Your task to perform on an android device: move an email to a new category in the gmail app Image 0: 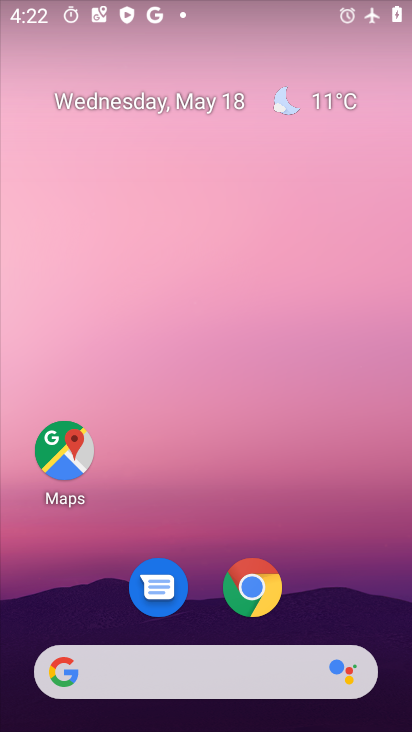
Step 0: drag from (252, 594) to (295, 205)
Your task to perform on an android device: move an email to a new category in the gmail app Image 1: 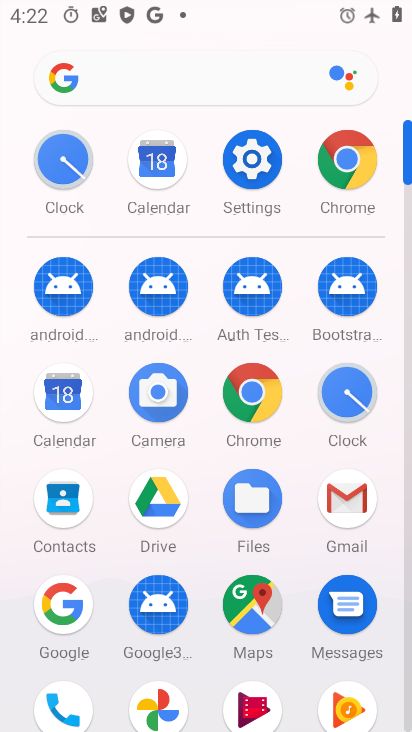
Step 1: click (357, 517)
Your task to perform on an android device: move an email to a new category in the gmail app Image 2: 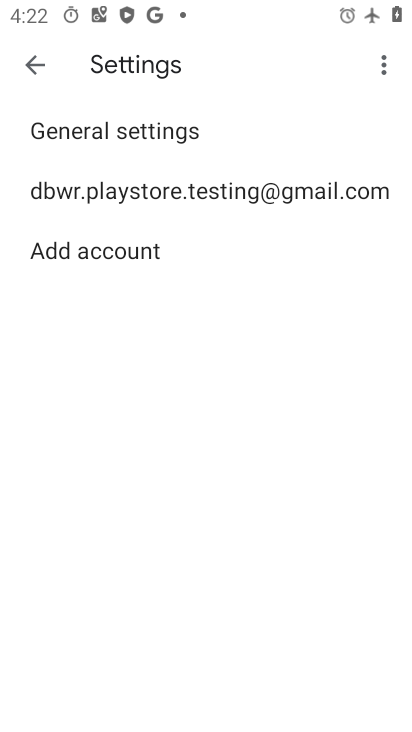
Step 2: click (40, 76)
Your task to perform on an android device: move an email to a new category in the gmail app Image 3: 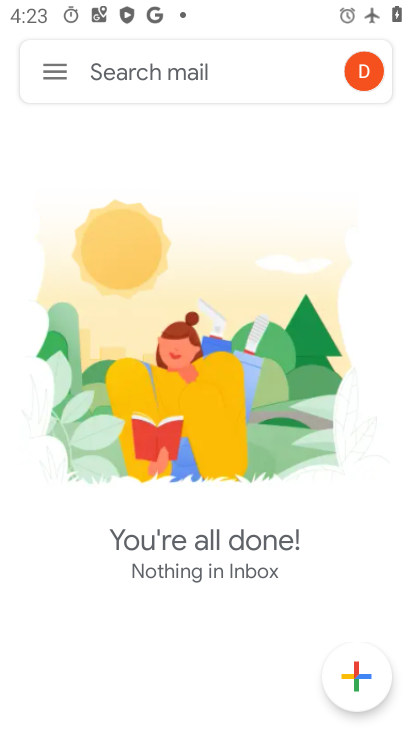
Step 3: click (56, 71)
Your task to perform on an android device: move an email to a new category in the gmail app Image 4: 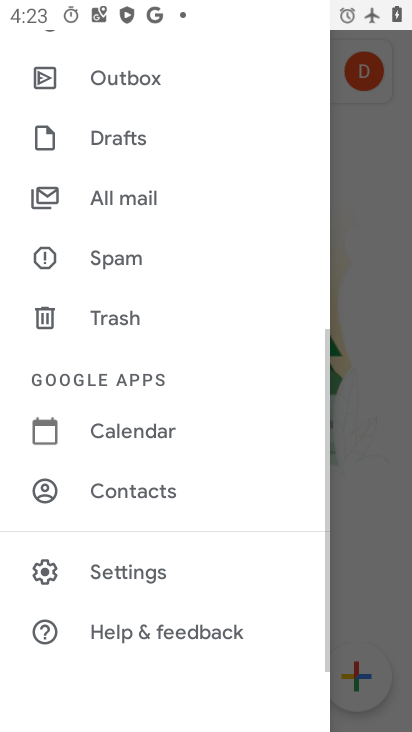
Step 4: drag from (162, 394) to (170, 475)
Your task to perform on an android device: move an email to a new category in the gmail app Image 5: 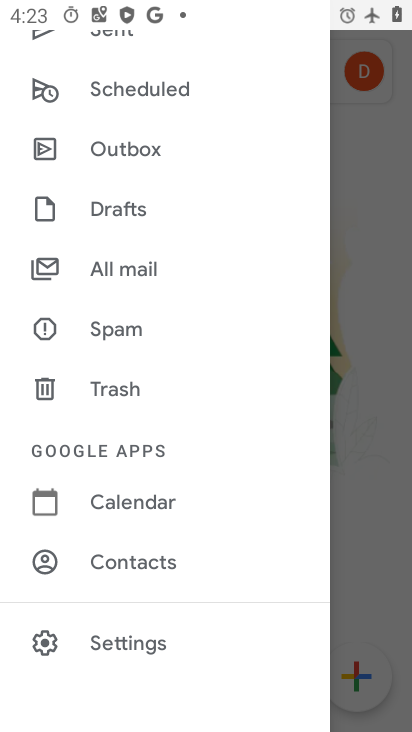
Step 5: drag from (172, 395) to (160, 630)
Your task to perform on an android device: move an email to a new category in the gmail app Image 6: 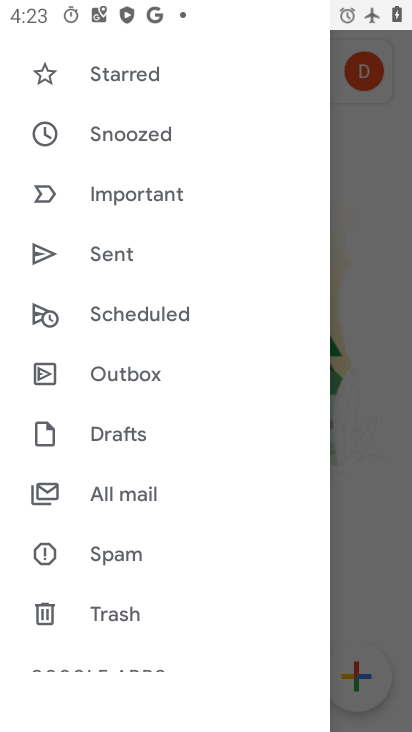
Step 6: drag from (176, 409) to (187, 574)
Your task to perform on an android device: move an email to a new category in the gmail app Image 7: 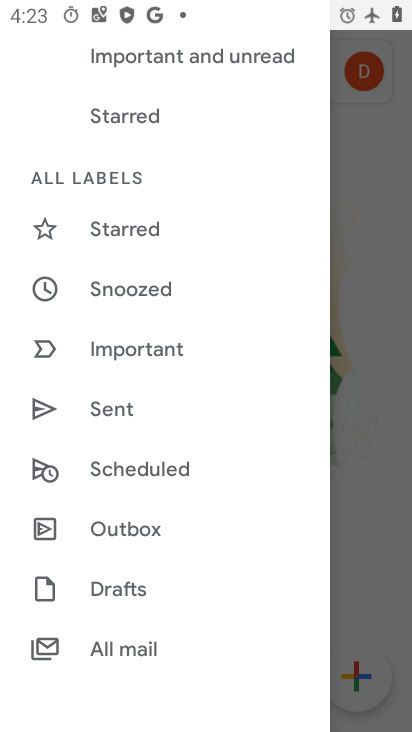
Step 7: drag from (211, 523) to (240, 358)
Your task to perform on an android device: move an email to a new category in the gmail app Image 8: 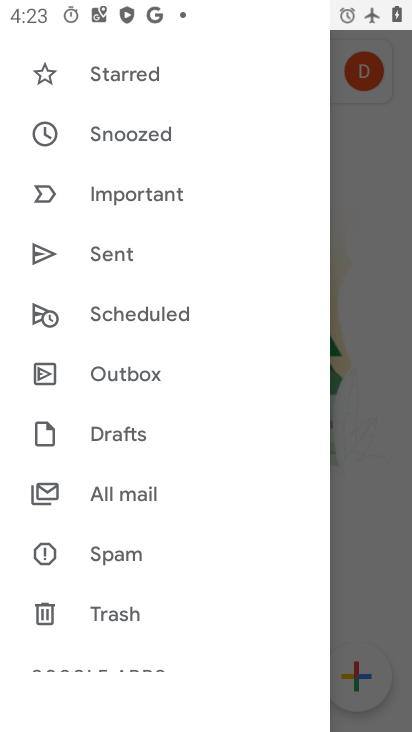
Step 8: click (164, 498)
Your task to perform on an android device: move an email to a new category in the gmail app Image 9: 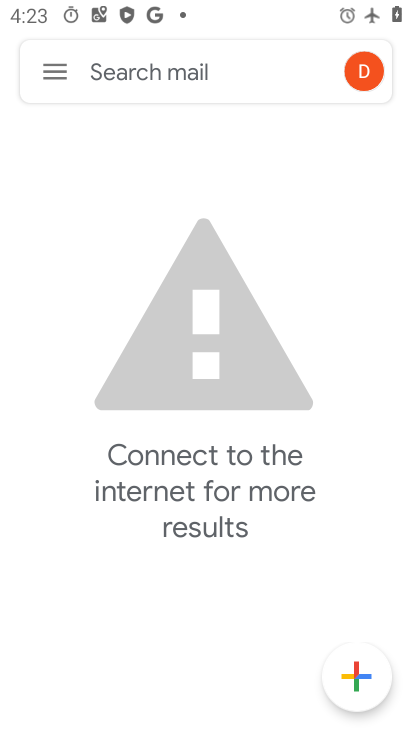
Step 9: task complete